Your task to perform on an android device: Go to Reddit.com Image 0: 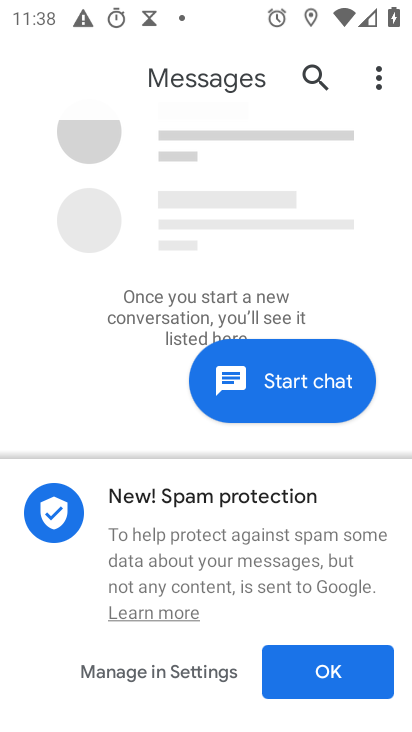
Step 0: press home button
Your task to perform on an android device: Go to Reddit.com Image 1: 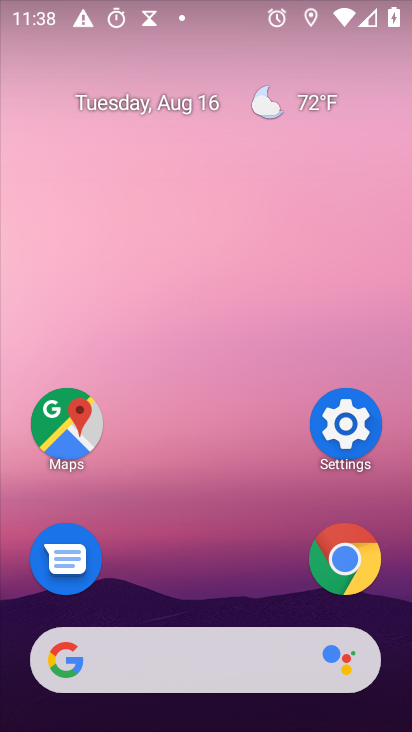
Step 1: click (345, 561)
Your task to perform on an android device: Go to Reddit.com Image 2: 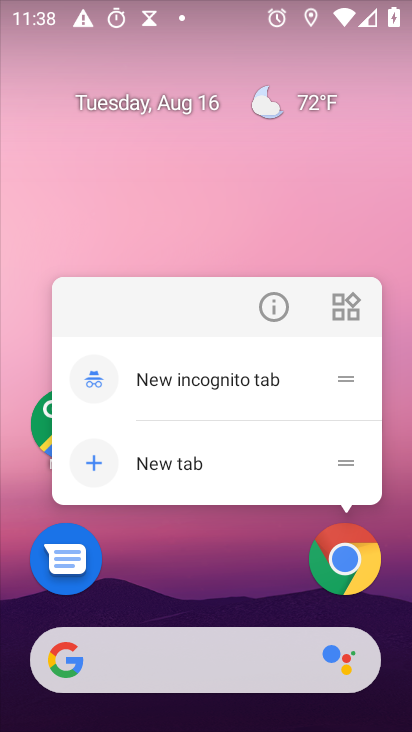
Step 2: click (353, 556)
Your task to perform on an android device: Go to Reddit.com Image 3: 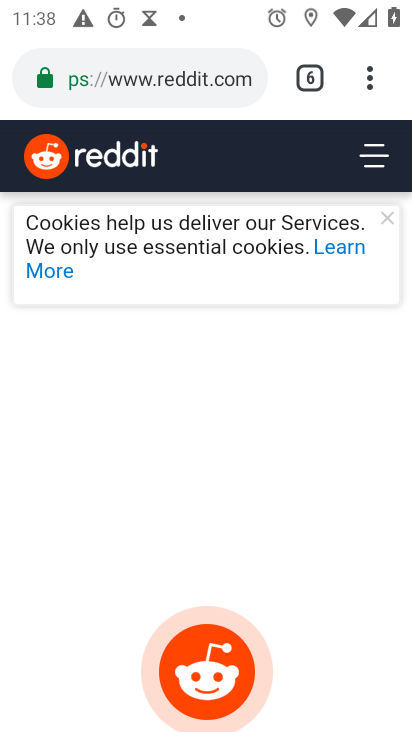
Step 3: task complete